Your task to perform on an android device: Open Youtube and go to the subscriptions tab Image 0: 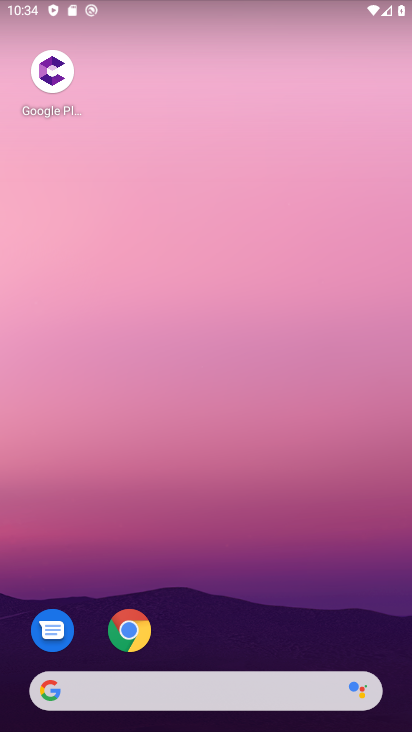
Step 0: click (189, 349)
Your task to perform on an android device: Open Youtube and go to the subscriptions tab Image 1: 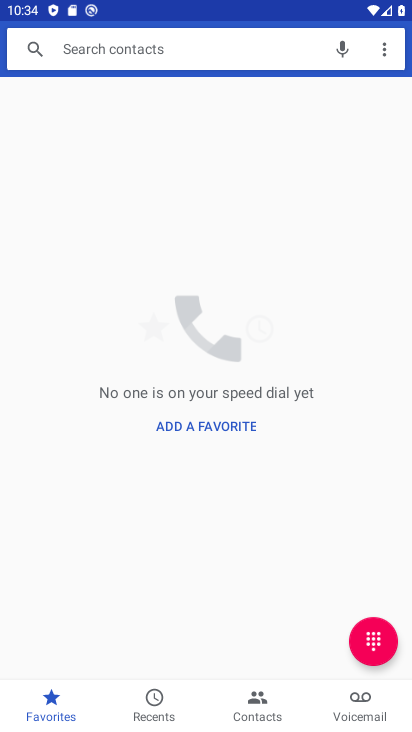
Step 1: press home button
Your task to perform on an android device: Open Youtube and go to the subscriptions tab Image 2: 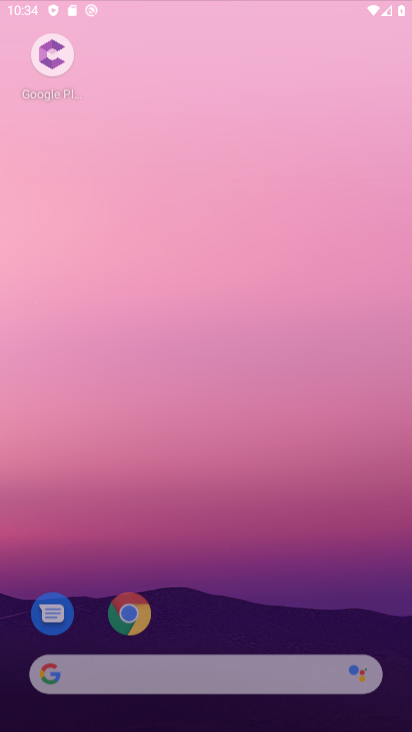
Step 2: drag from (226, 538) to (203, 185)
Your task to perform on an android device: Open Youtube and go to the subscriptions tab Image 3: 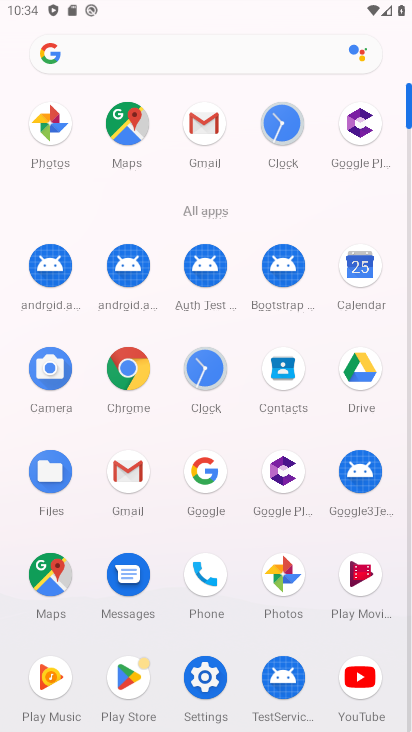
Step 3: drag from (161, 583) to (174, 269)
Your task to perform on an android device: Open Youtube and go to the subscriptions tab Image 4: 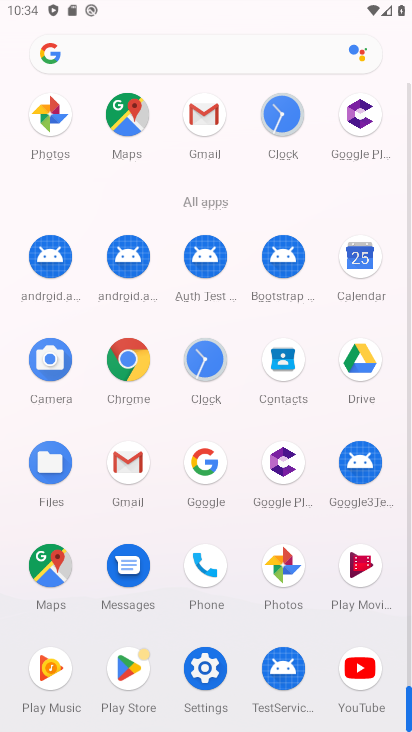
Step 4: click (365, 669)
Your task to perform on an android device: Open Youtube and go to the subscriptions tab Image 5: 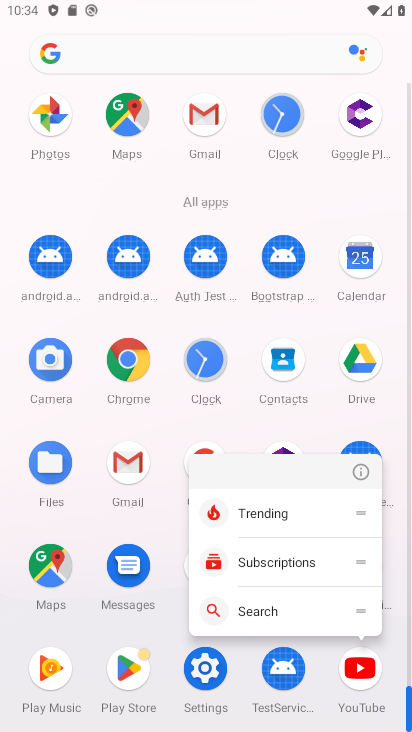
Step 5: click (360, 467)
Your task to perform on an android device: Open Youtube and go to the subscriptions tab Image 6: 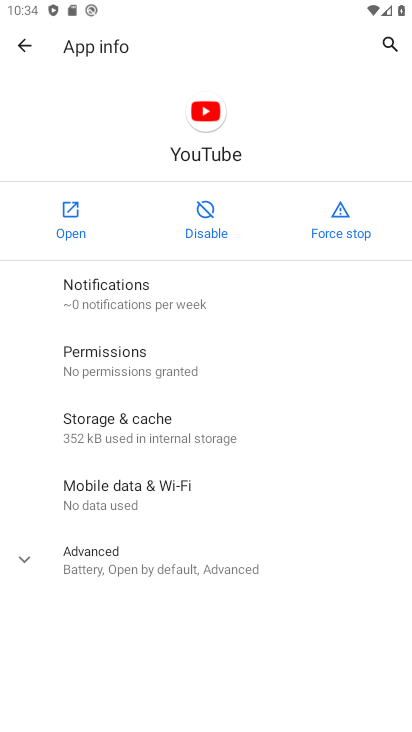
Step 6: click (74, 224)
Your task to perform on an android device: Open Youtube and go to the subscriptions tab Image 7: 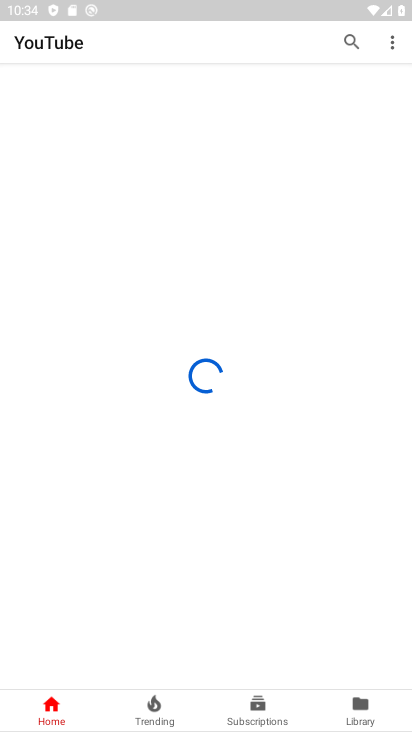
Step 7: drag from (267, 458) to (254, 251)
Your task to perform on an android device: Open Youtube and go to the subscriptions tab Image 8: 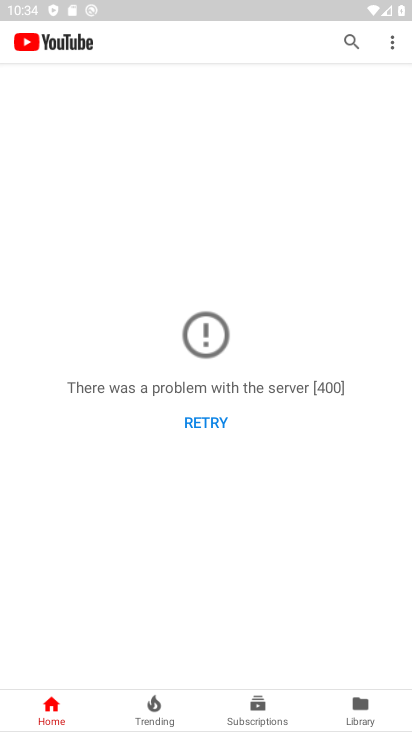
Step 8: click (257, 705)
Your task to perform on an android device: Open Youtube and go to the subscriptions tab Image 9: 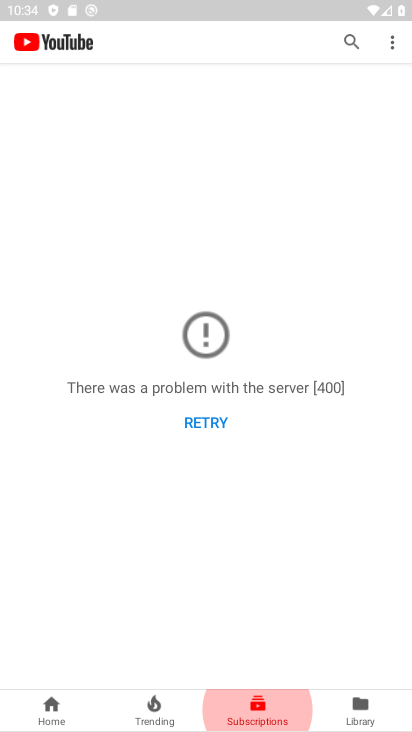
Step 9: task complete